Your task to perform on an android device: Go to location settings Image 0: 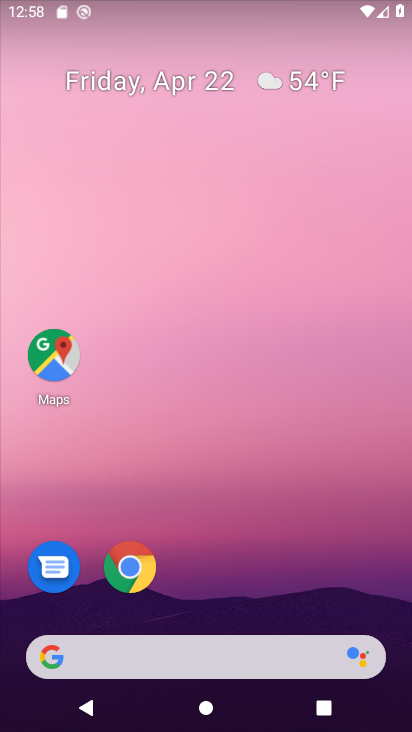
Step 0: drag from (257, 607) to (307, 83)
Your task to perform on an android device: Go to location settings Image 1: 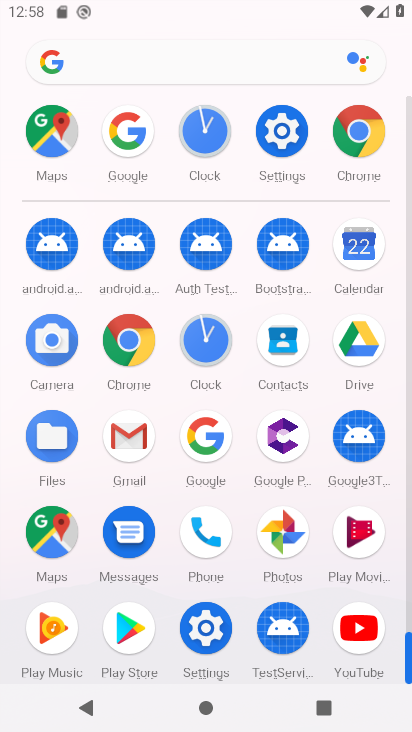
Step 1: click (286, 156)
Your task to perform on an android device: Go to location settings Image 2: 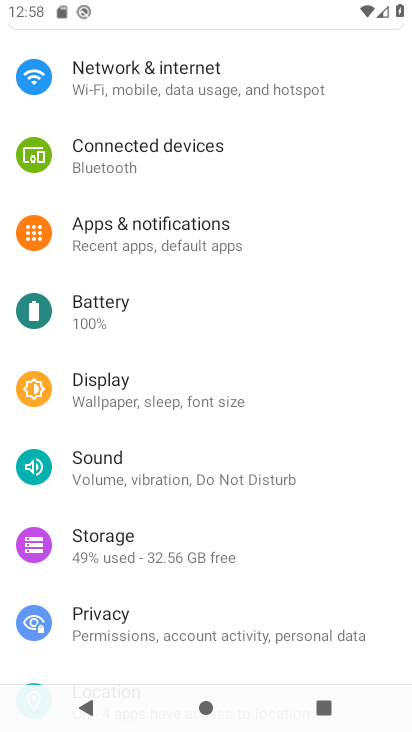
Step 2: drag from (218, 537) to (282, 267)
Your task to perform on an android device: Go to location settings Image 3: 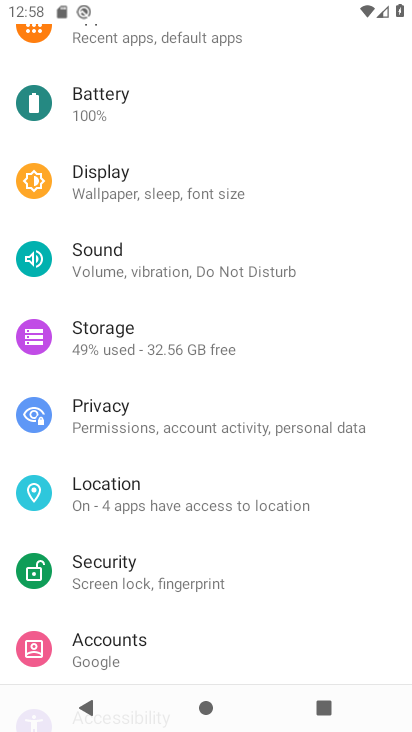
Step 3: click (205, 508)
Your task to perform on an android device: Go to location settings Image 4: 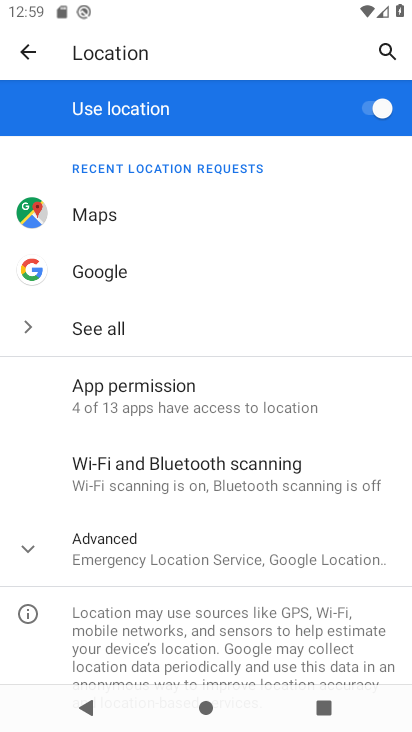
Step 4: task complete